Your task to perform on an android device: add a contact Image 0: 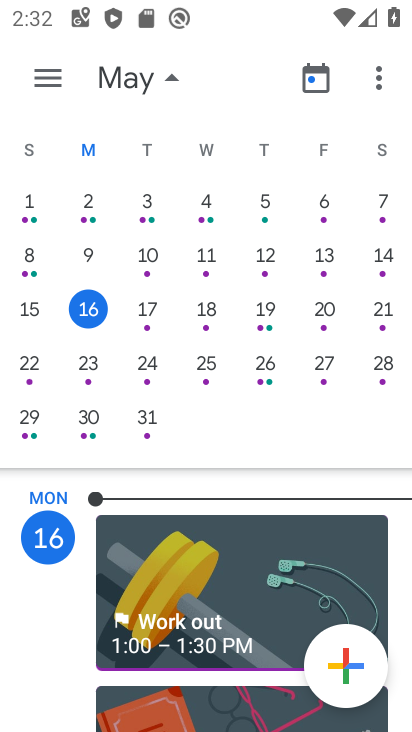
Step 0: press home button
Your task to perform on an android device: add a contact Image 1: 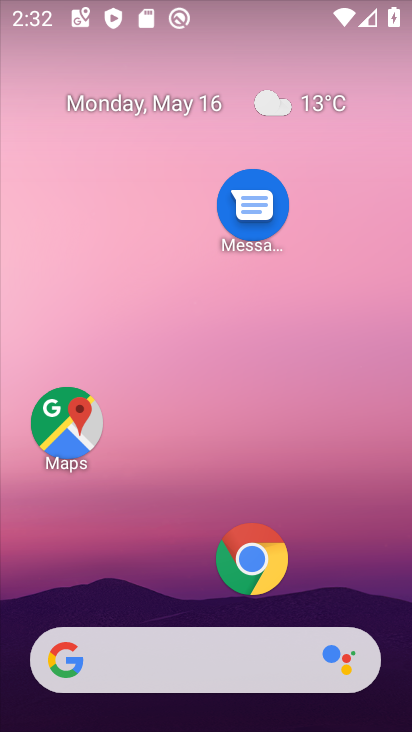
Step 1: drag from (151, 565) to (173, 157)
Your task to perform on an android device: add a contact Image 2: 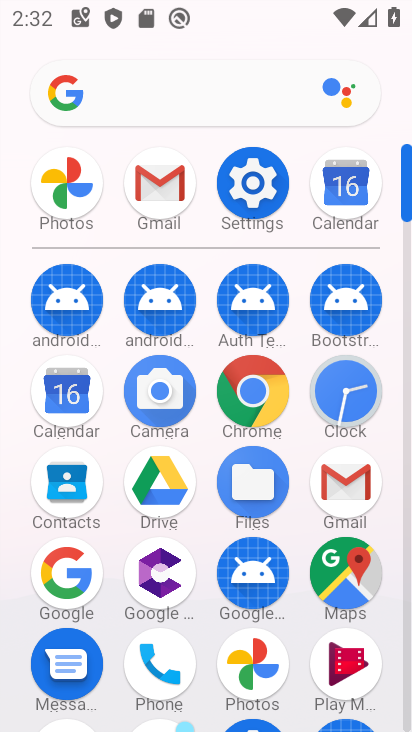
Step 2: drag from (208, 618) to (271, 274)
Your task to perform on an android device: add a contact Image 3: 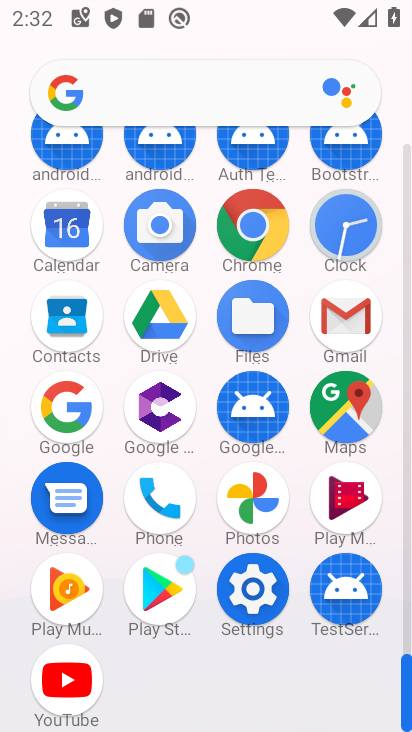
Step 3: click (61, 307)
Your task to perform on an android device: add a contact Image 4: 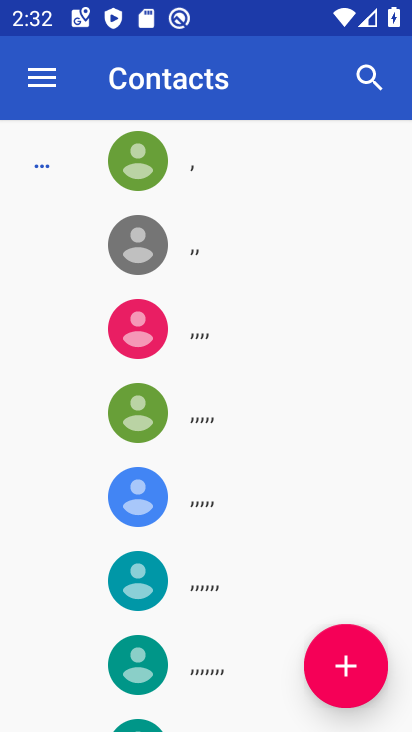
Step 4: click (351, 683)
Your task to perform on an android device: add a contact Image 5: 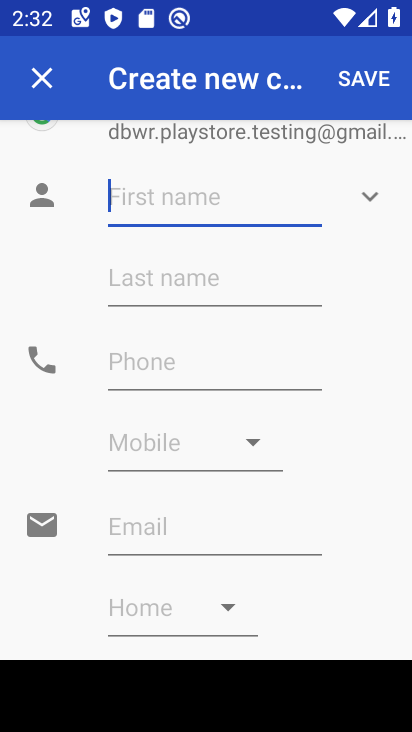
Step 5: type ""
Your task to perform on an android device: add a contact Image 6: 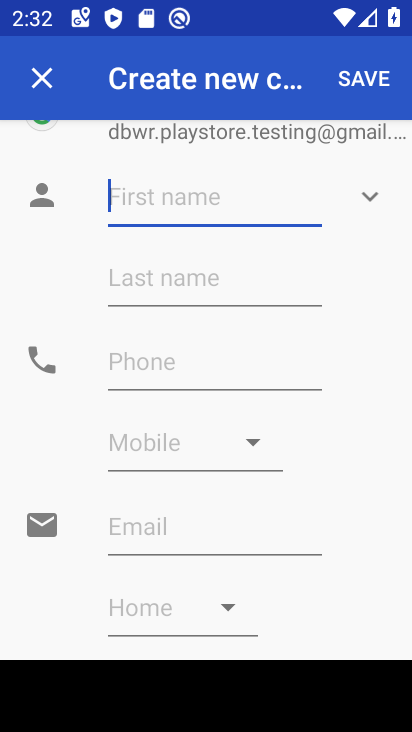
Step 6: type "dc"
Your task to perform on an android device: add a contact Image 7: 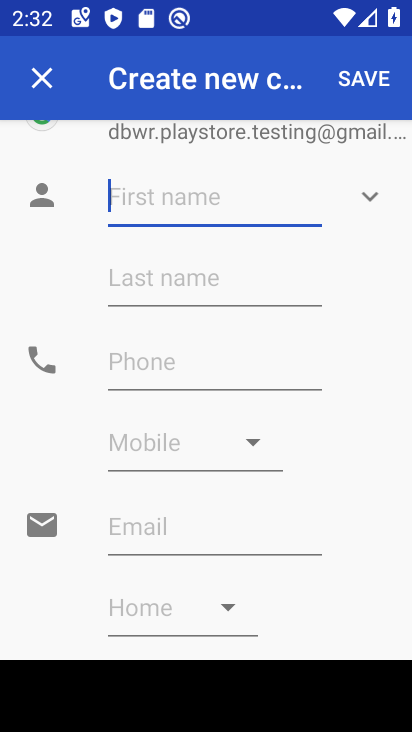
Step 7: click (120, 279)
Your task to perform on an android device: add a contact Image 8: 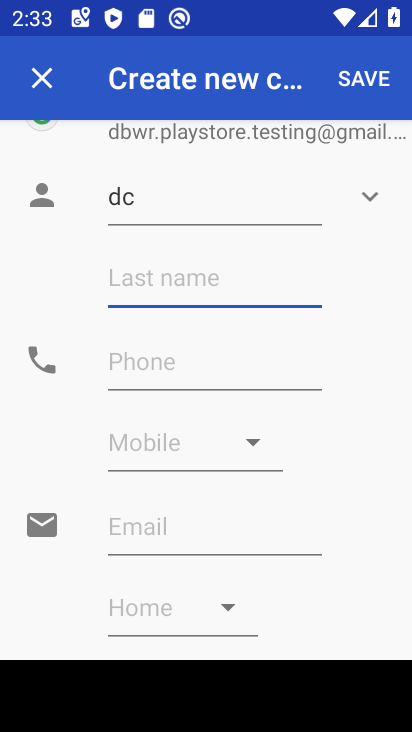
Step 8: type "dcd"
Your task to perform on an android device: add a contact Image 9: 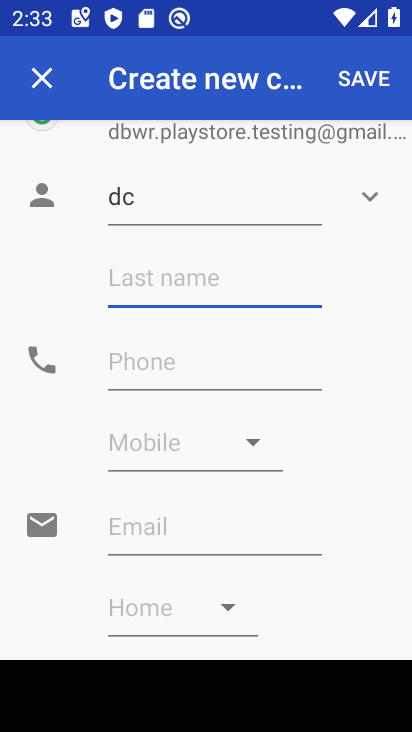
Step 9: click (190, 365)
Your task to perform on an android device: add a contact Image 10: 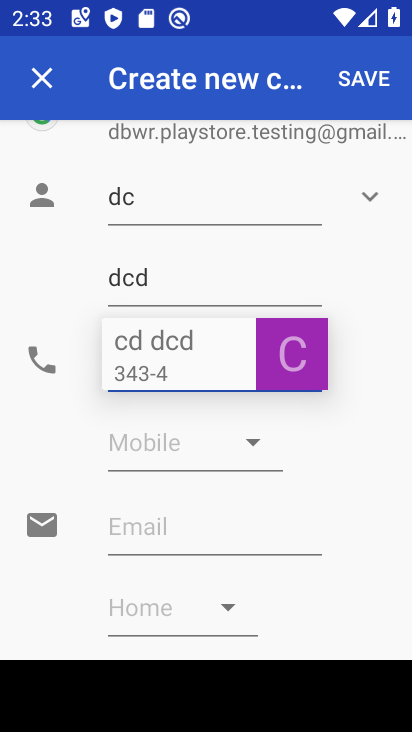
Step 10: type "4444444444"
Your task to perform on an android device: add a contact Image 11: 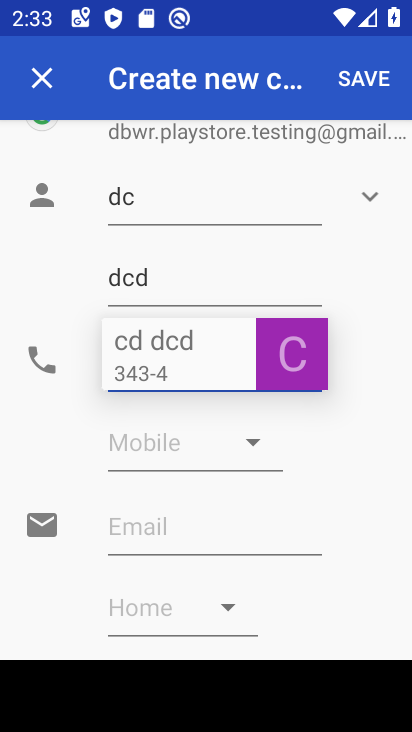
Step 11: click (145, 432)
Your task to perform on an android device: add a contact Image 12: 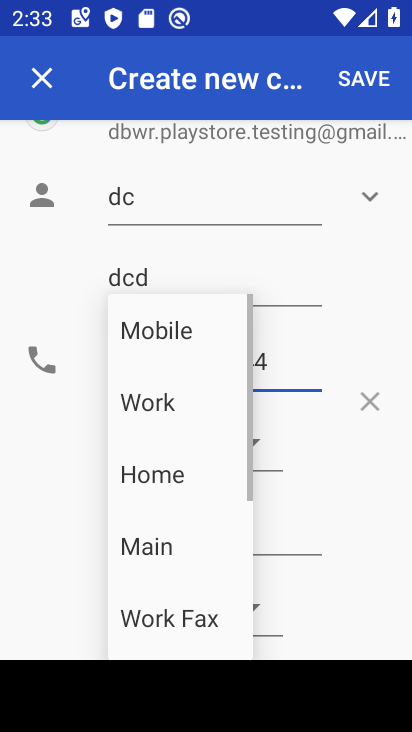
Step 12: click (386, 88)
Your task to perform on an android device: add a contact Image 13: 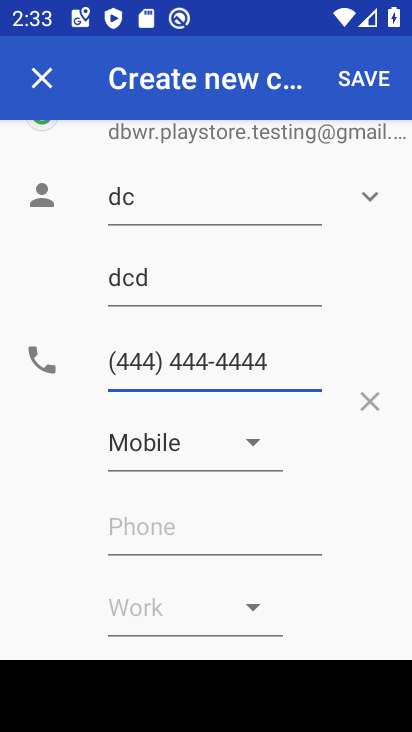
Step 13: click (347, 90)
Your task to perform on an android device: add a contact Image 14: 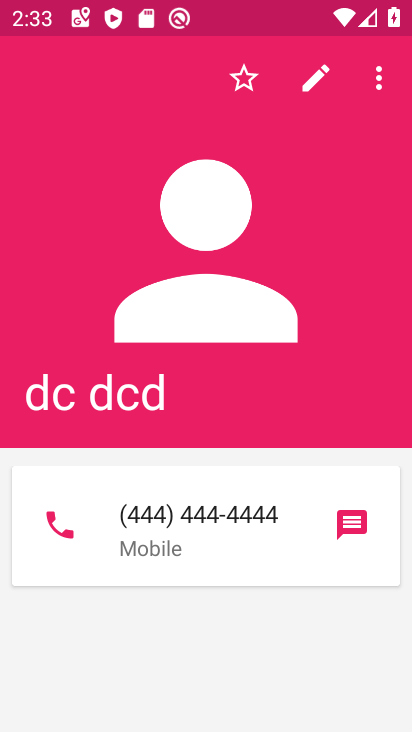
Step 14: task complete